Your task to perform on an android device: all mails in gmail Image 0: 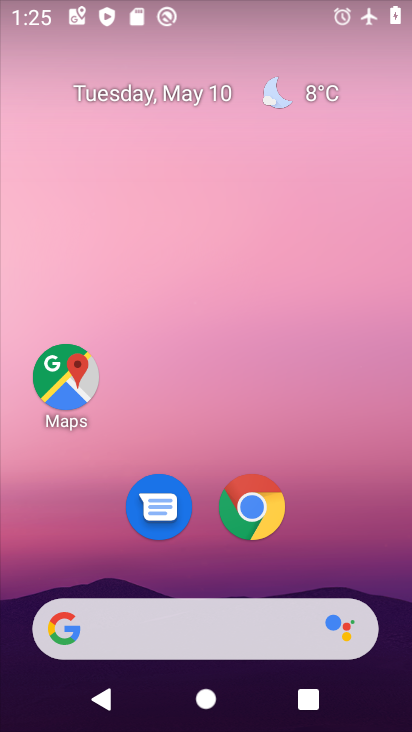
Step 0: drag from (230, 727) to (231, 148)
Your task to perform on an android device: all mails in gmail Image 1: 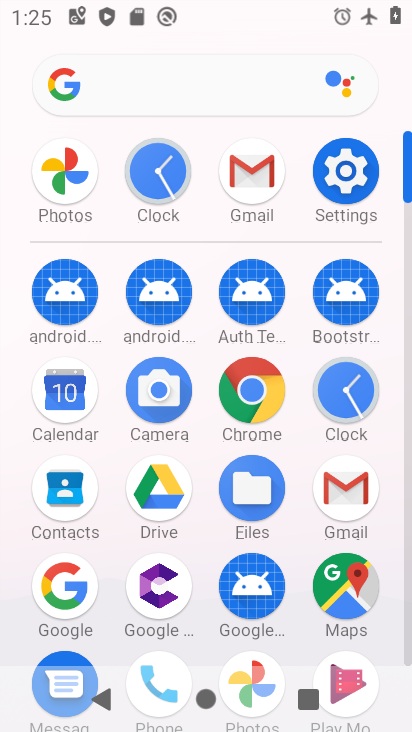
Step 1: click (343, 484)
Your task to perform on an android device: all mails in gmail Image 2: 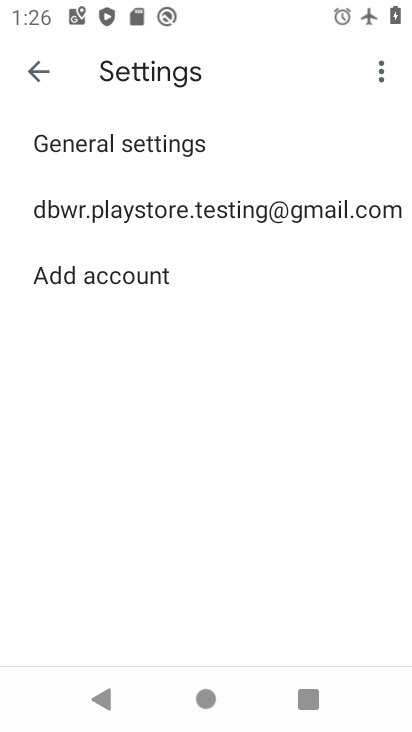
Step 2: click (39, 71)
Your task to perform on an android device: all mails in gmail Image 3: 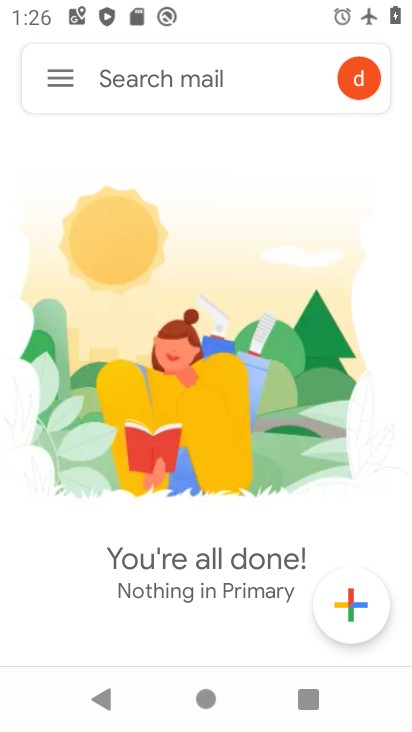
Step 3: click (58, 80)
Your task to perform on an android device: all mails in gmail Image 4: 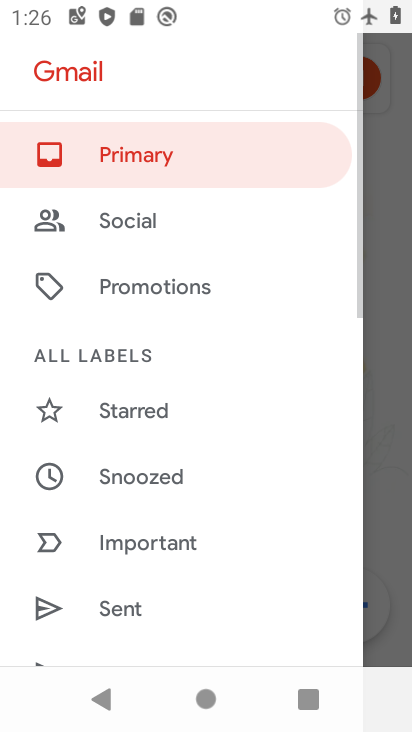
Step 4: drag from (140, 570) to (143, 287)
Your task to perform on an android device: all mails in gmail Image 5: 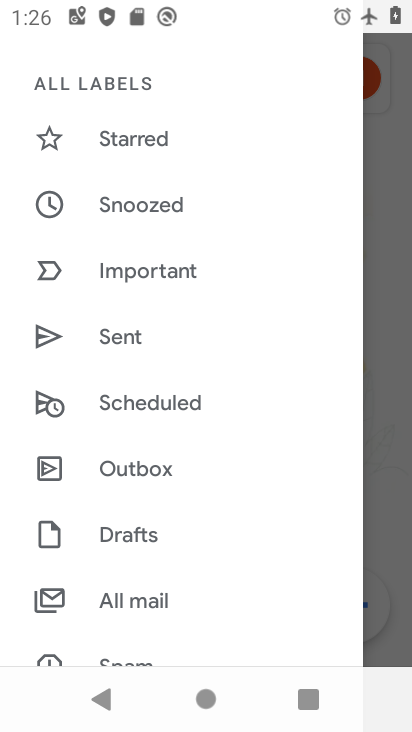
Step 5: click (140, 597)
Your task to perform on an android device: all mails in gmail Image 6: 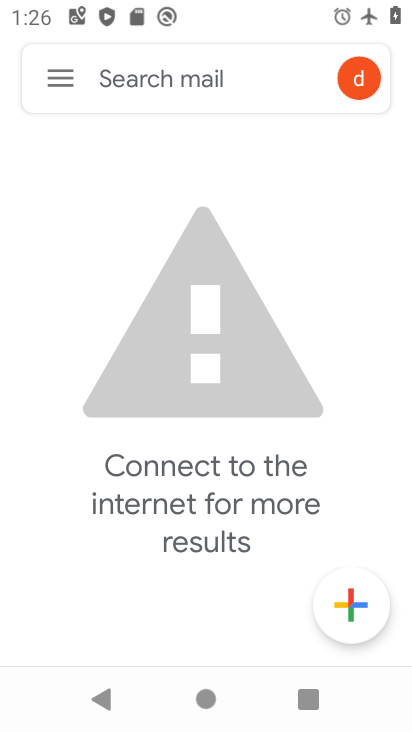
Step 6: task complete